Your task to perform on an android device: turn off smart reply in the gmail app Image 0: 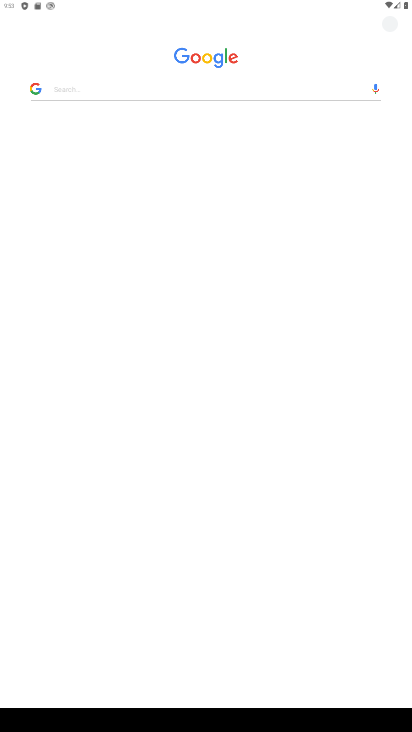
Step 0: press home button
Your task to perform on an android device: turn off smart reply in the gmail app Image 1: 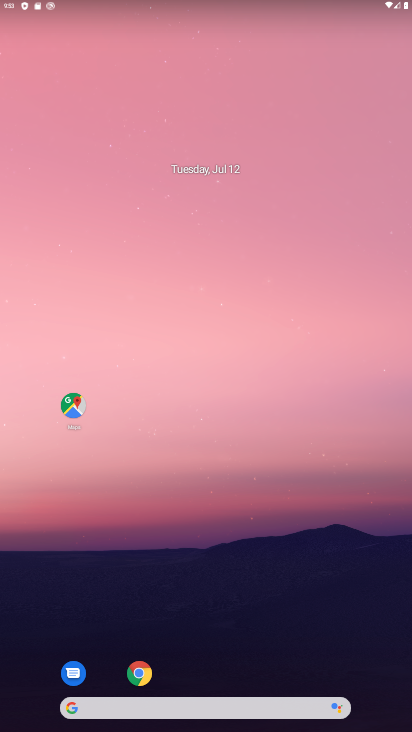
Step 1: drag from (293, 589) to (261, 124)
Your task to perform on an android device: turn off smart reply in the gmail app Image 2: 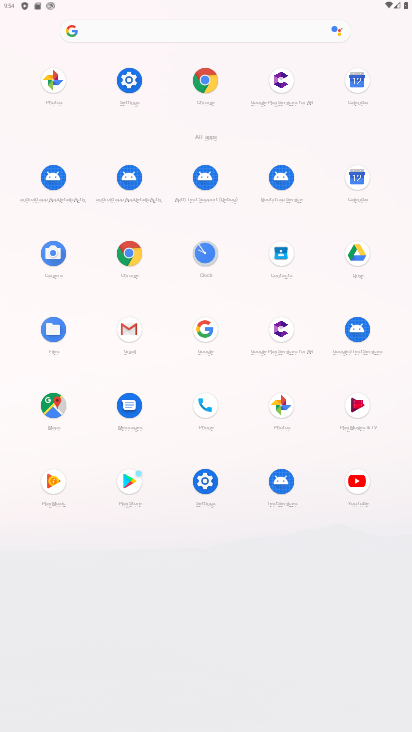
Step 2: click (134, 333)
Your task to perform on an android device: turn off smart reply in the gmail app Image 3: 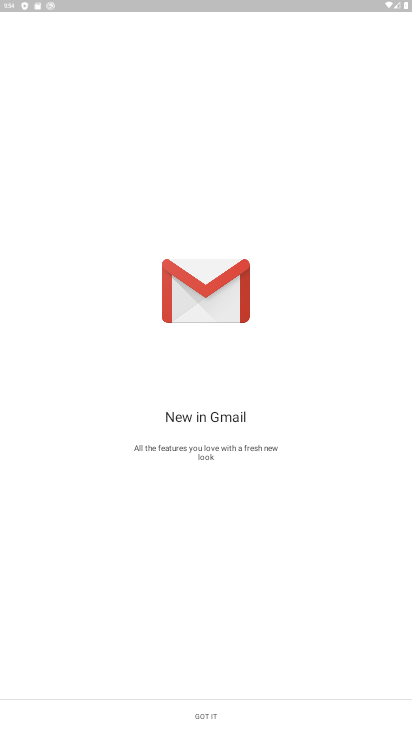
Step 3: click (240, 717)
Your task to perform on an android device: turn off smart reply in the gmail app Image 4: 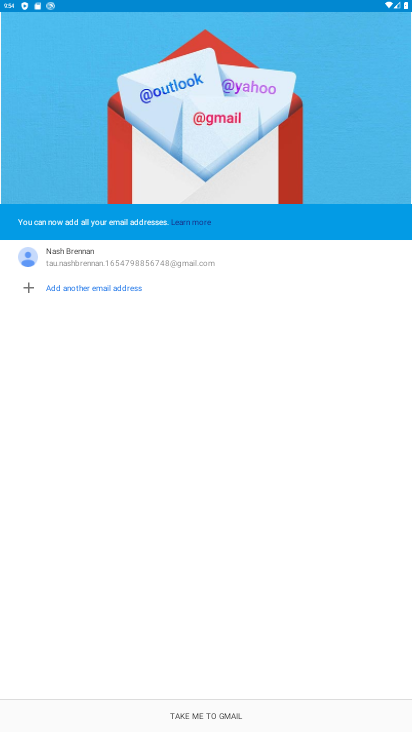
Step 4: click (245, 721)
Your task to perform on an android device: turn off smart reply in the gmail app Image 5: 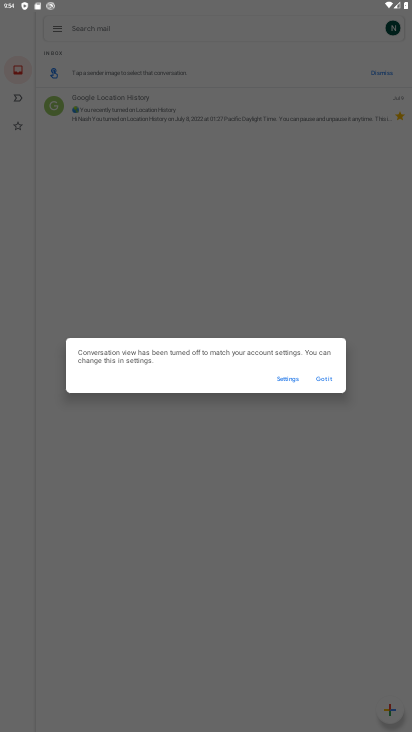
Step 5: click (326, 373)
Your task to perform on an android device: turn off smart reply in the gmail app Image 6: 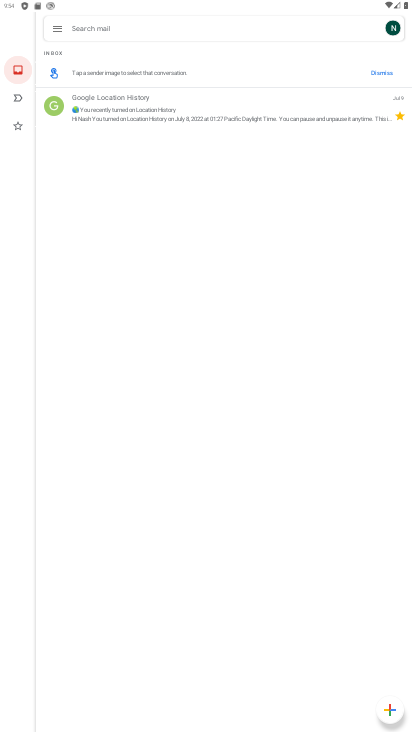
Step 6: click (49, 30)
Your task to perform on an android device: turn off smart reply in the gmail app Image 7: 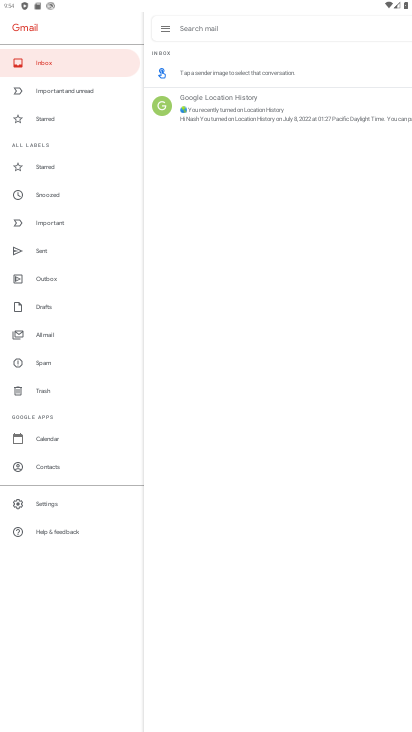
Step 7: click (64, 499)
Your task to perform on an android device: turn off smart reply in the gmail app Image 8: 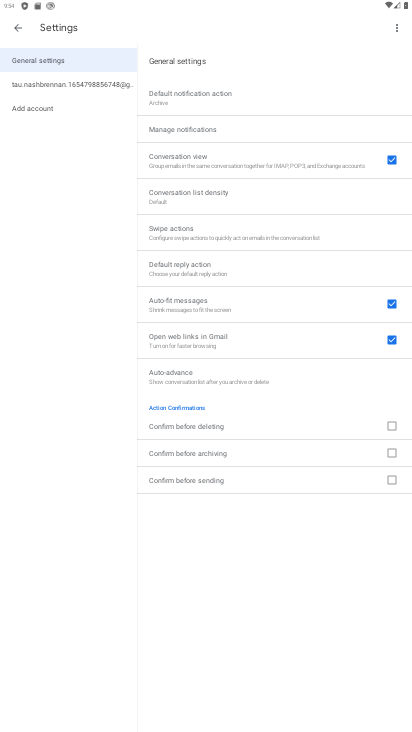
Step 8: click (105, 77)
Your task to perform on an android device: turn off smart reply in the gmail app Image 9: 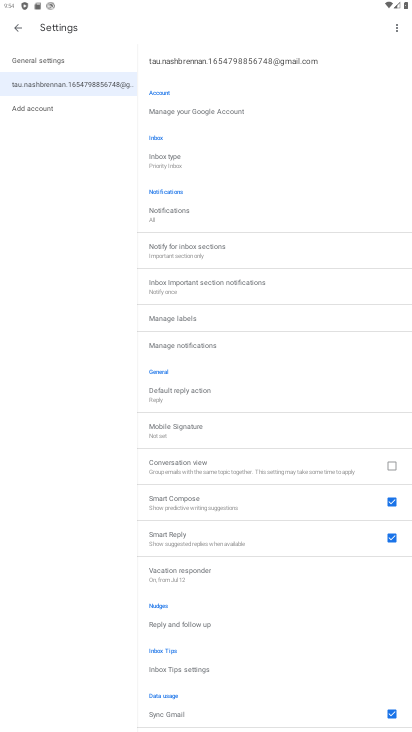
Step 9: click (392, 534)
Your task to perform on an android device: turn off smart reply in the gmail app Image 10: 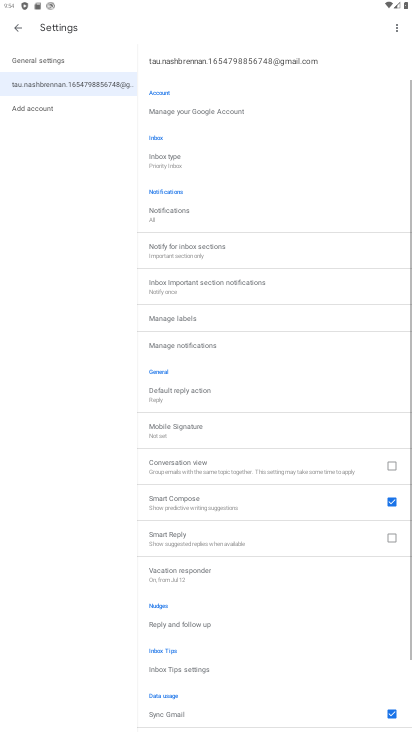
Step 10: task complete